Your task to perform on an android device: Show me productivity apps on the Play Store Image 0: 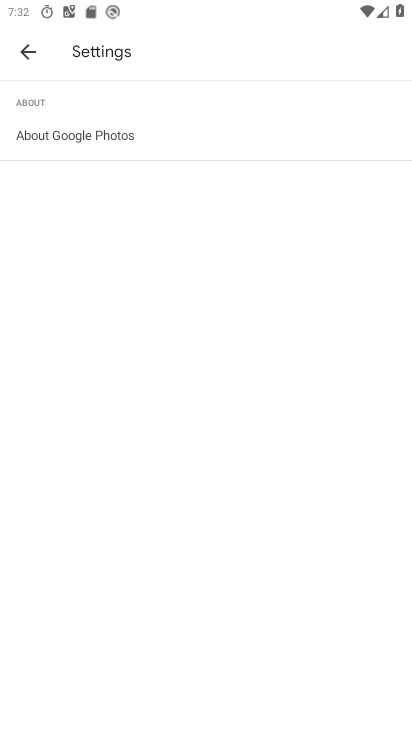
Step 0: press home button
Your task to perform on an android device: Show me productivity apps on the Play Store Image 1: 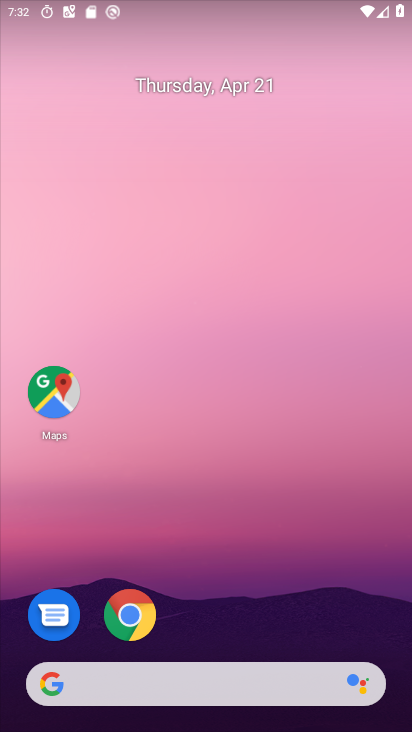
Step 1: drag from (138, 689) to (291, 136)
Your task to perform on an android device: Show me productivity apps on the Play Store Image 2: 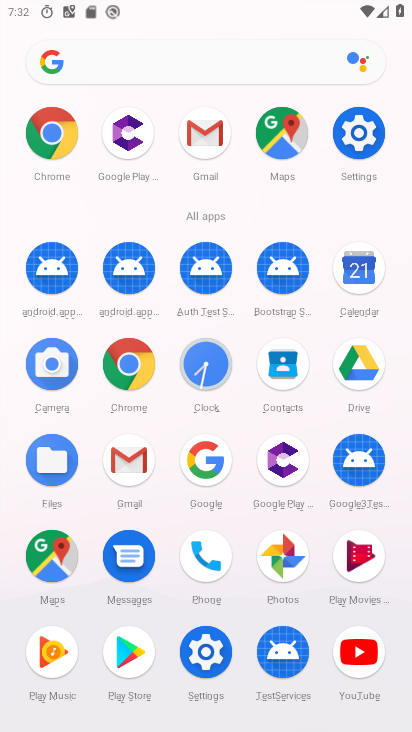
Step 2: click (128, 658)
Your task to perform on an android device: Show me productivity apps on the Play Store Image 3: 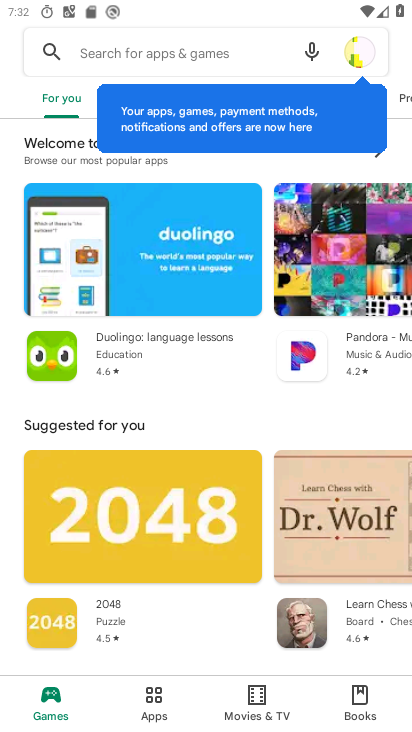
Step 3: click (157, 697)
Your task to perform on an android device: Show me productivity apps on the Play Store Image 4: 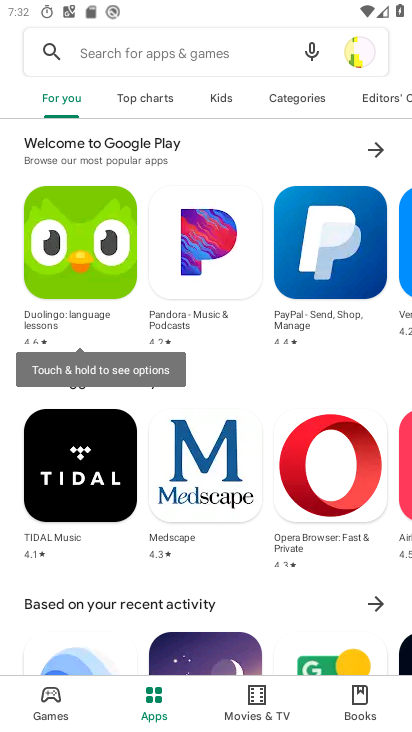
Step 4: click (300, 97)
Your task to perform on an android device: Show me productivity apps on the Play Store Image 5: 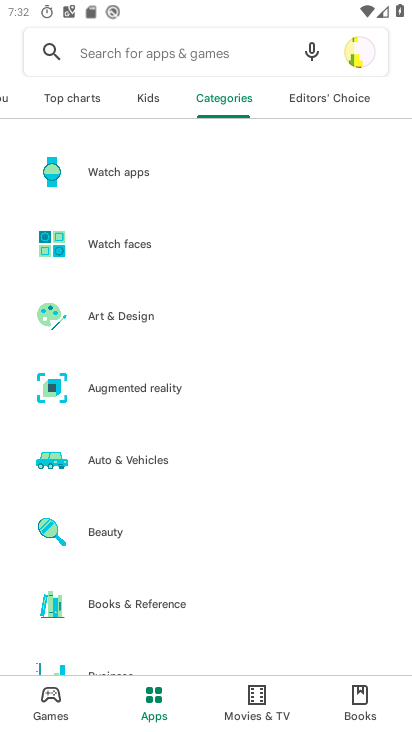
Step 5: drag from (227, 588) to (367, 194)
Your task to perform on an android device: Show me productivity apps on the Play Store Image 6: 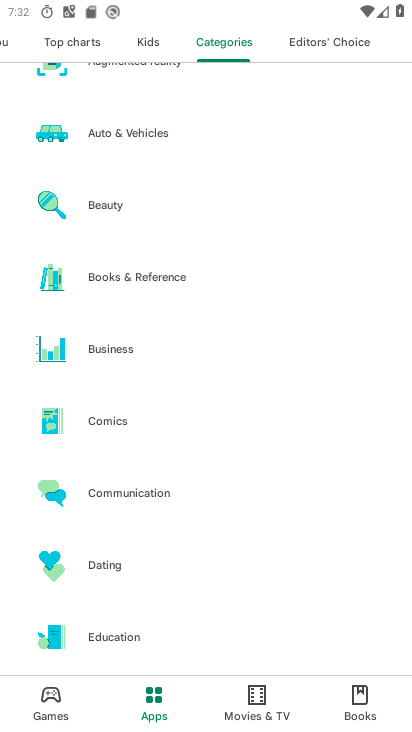
Step 6: drag from (243, 583) to (355, 95)
Your task to perform on an android device: Show me productivity apps on the Play Store Image 7: 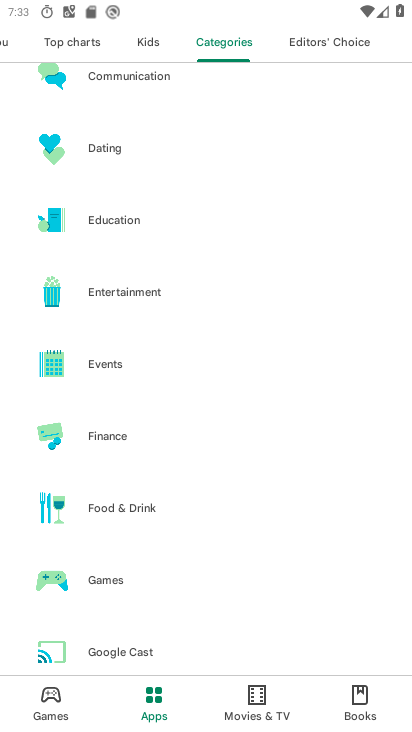
Step 7: drag from (272, 602) to (369, 141)
Your task to perform on an android device: Show me productivity apps on the Play Store Image 8: 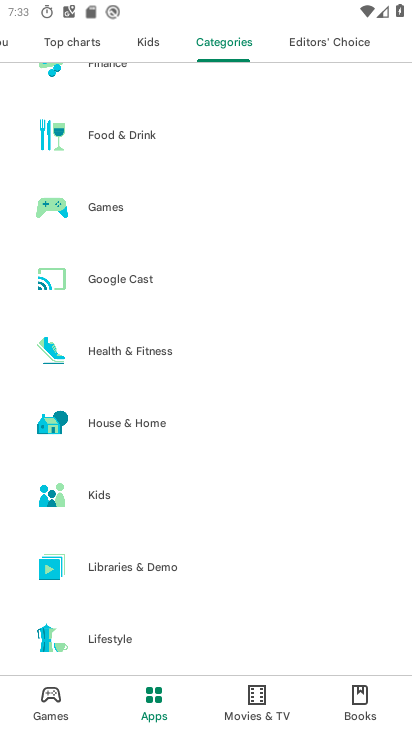
Step 8: drag from (205, 615) to (286, 191)
Your task to perform on an android device: Show me productivity apps on the Play Store Image 9: 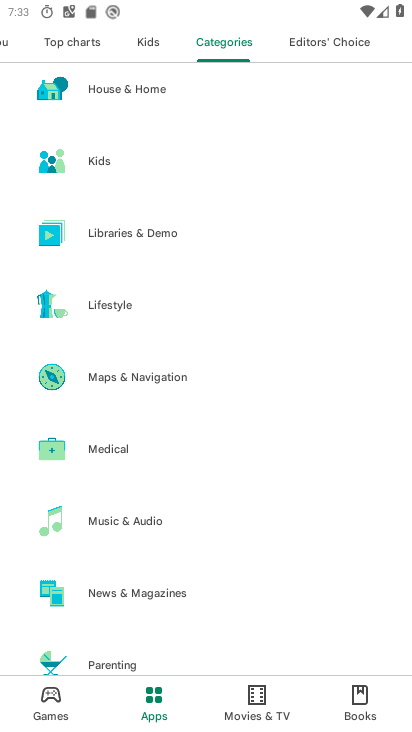
Step 9: drag from (180, 640) to (267, 276)
Your task to perform on an android device: Show me productivity apps on the Play Store Image 10: 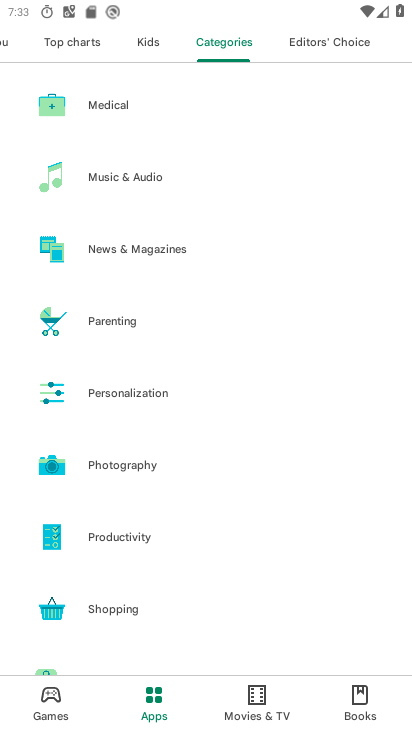
Step 10: click (128, 531)
Your task to perform on an android device: Show me productivity apps on the Play Store Image 11: 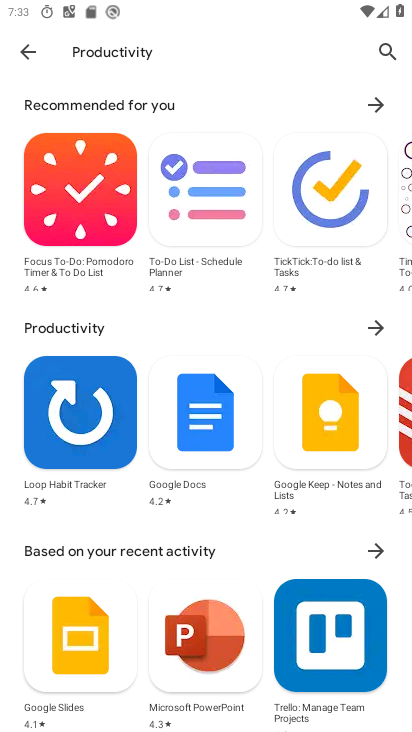
Step 11: task complete